Your task to perform on an android device: add a contact Image 0: 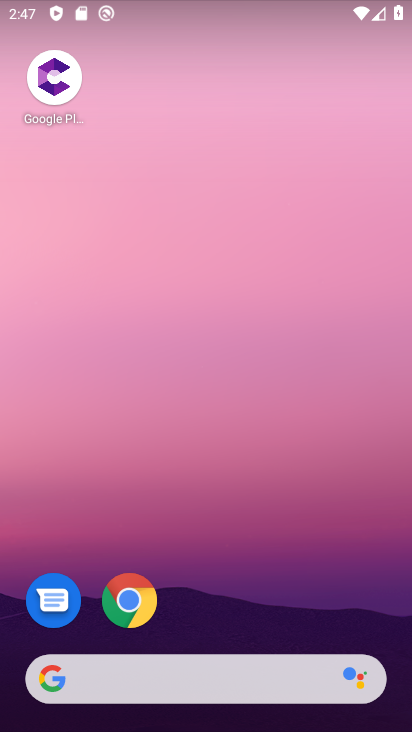
Step 0: drag from (233, 576) to (319, 98)
Your task to perform on an android device: add a contact Image 1: 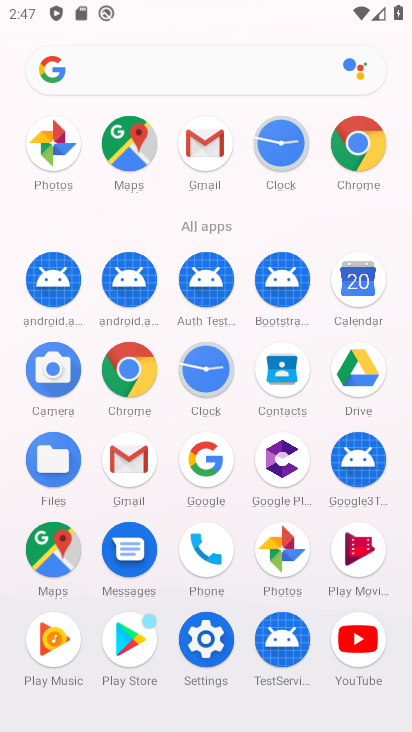
Step 1: click (285, 383)
Your task to perform on an android device: add a contact Image 2: 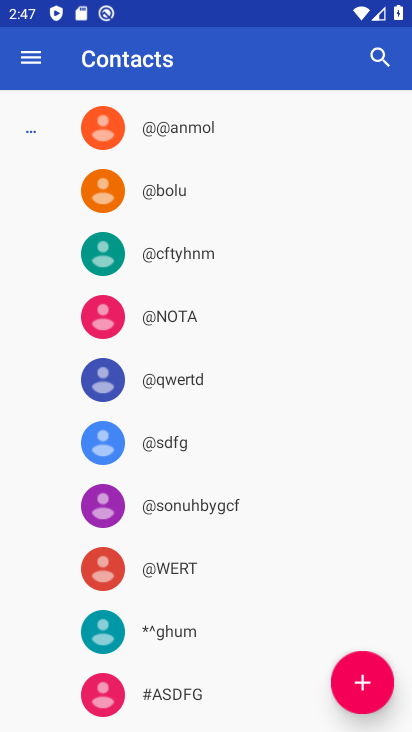
Step 2: click (348, 666)
Your task to perform on an android device: add a contact Image 3: 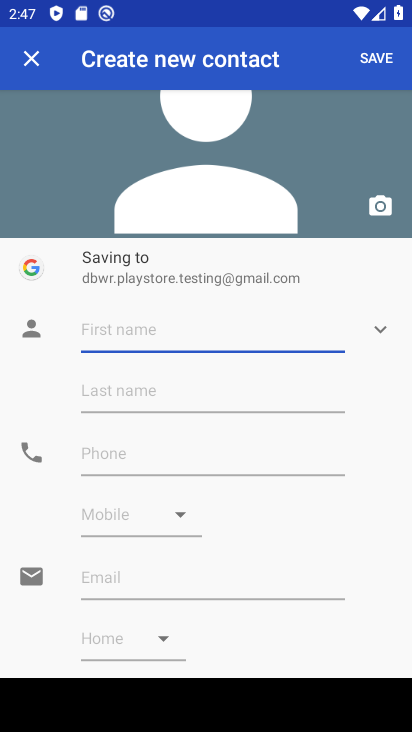
Step 3: type "dweller"
Your task to perform on an android device: add a contact Image 4: 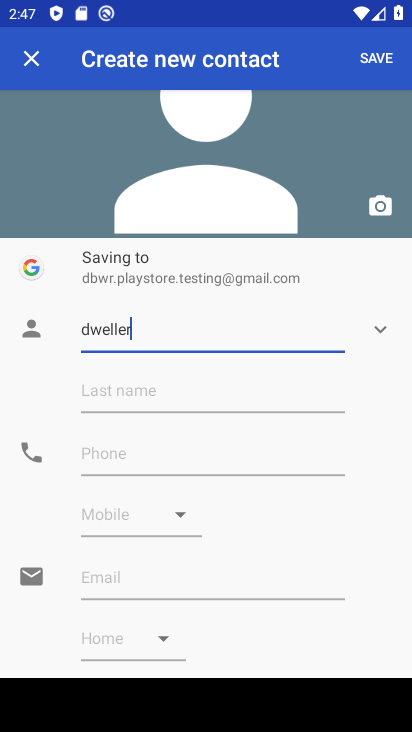
Step 4: click (370, 55)
Your task to perform on an android device: add a contact Image 5: 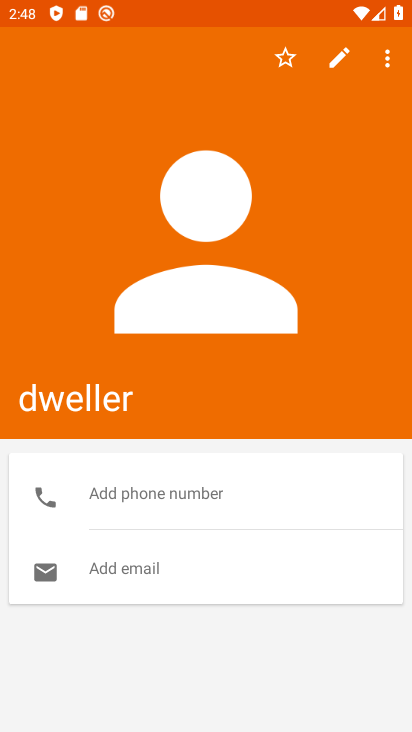
Step 5: task complete